Your task to perform on an android device: make emails show in primary in the gmail app Image 0: 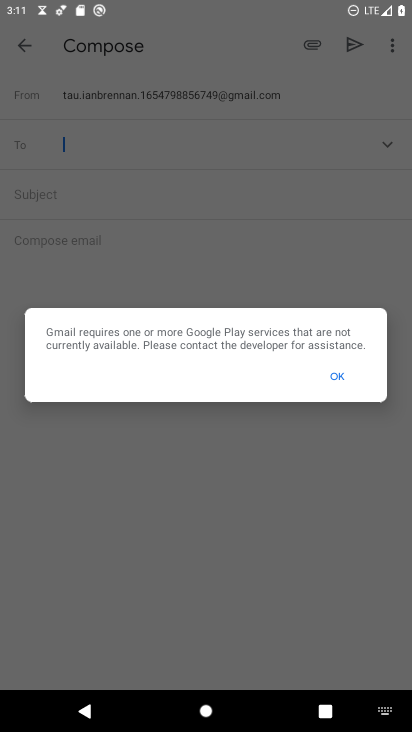
Step 0: press home button
Your task to perform on an android device: make emails show in primary in the gmail app Image 1: 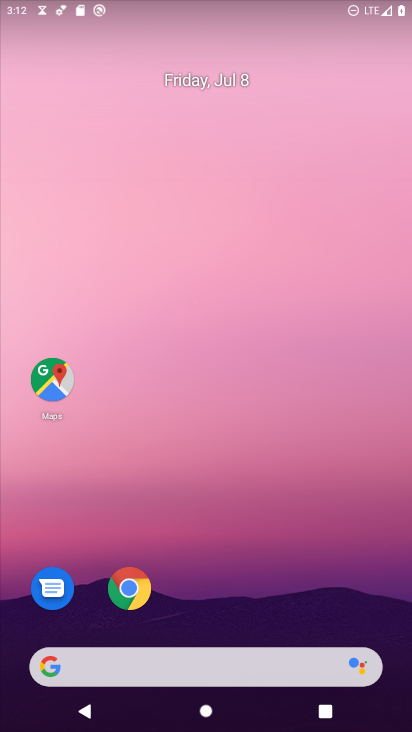
Step 1: drag from (213, 584) to (187, 209)
Your task to perform on an android device: make emails show in primary in the gmail app Image 2: 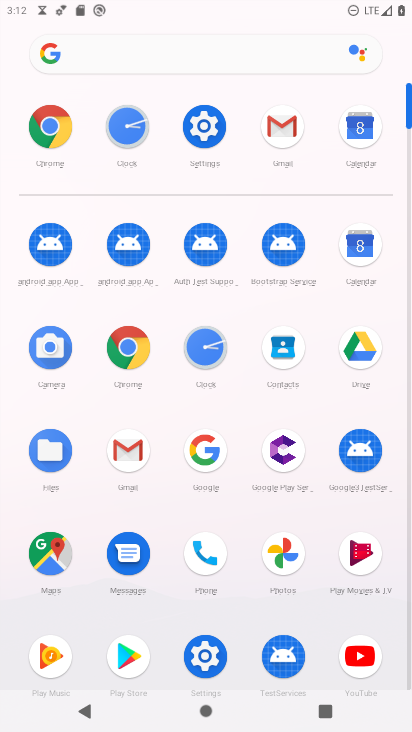
Step 2: click (284, 128)
Your task to perform on an android device: make emails show in primary in the gmail app Image 3: 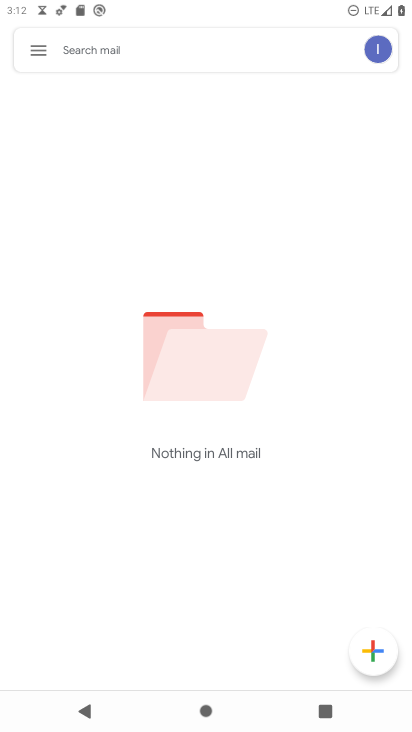
Step 3: click (34, 51)
Your task to perform on an android device: make emails show in primary in the gmail app Image 4: 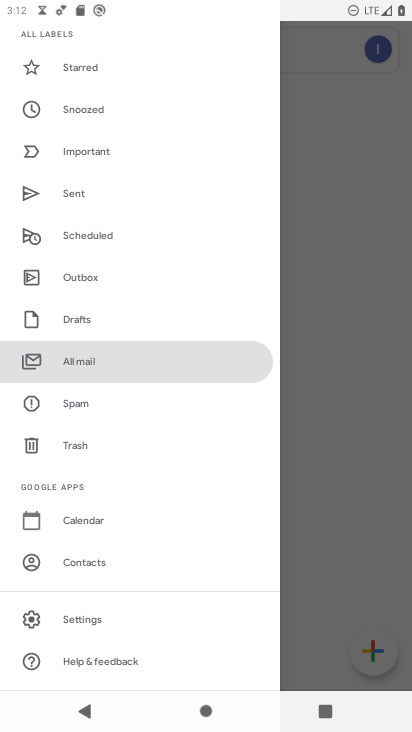
Step 4: click (80, 621)
Your task to perform on an android device: make emails show in primary in the gmail app Image 5: 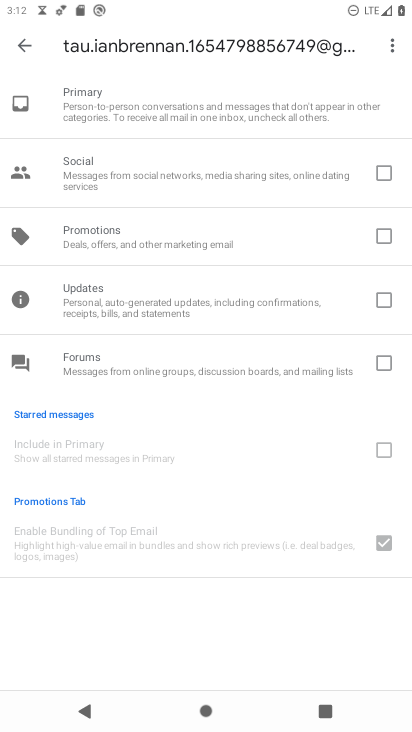
Step 5: drag from (198, 333) to (209, 666)
Your task to perform on an android device: make emails show in primary in the gmail app Image 6: 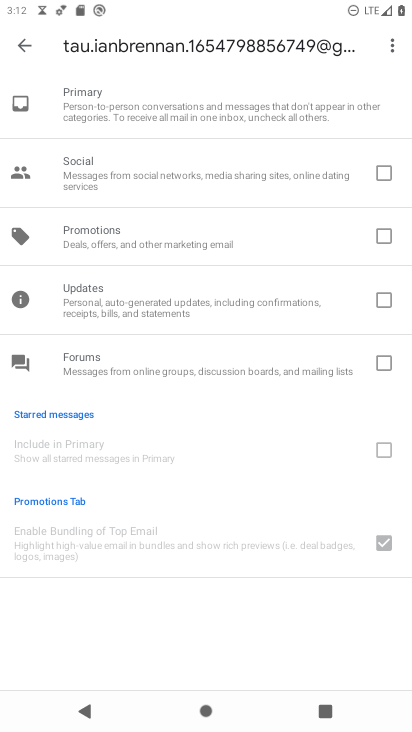
Step 6: drag from (216, 333) to (216, 602)
Your task to perform on an android device: make emails show in primary in the gmail app Image 7: 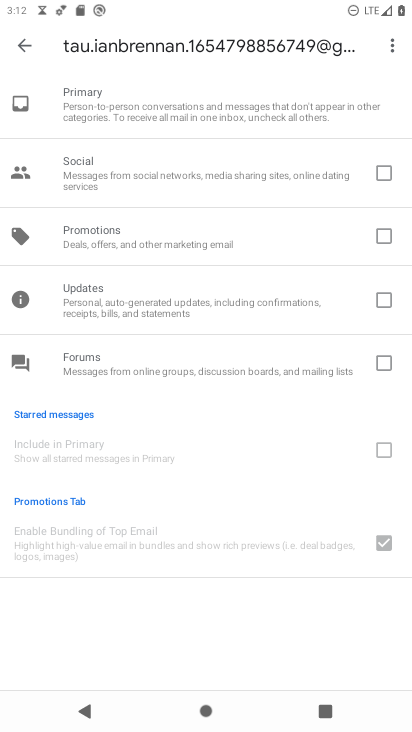
Step 7: click (28, 45)
Your task to perform on an android device: make emails show in primary in the gmail app Image 8: 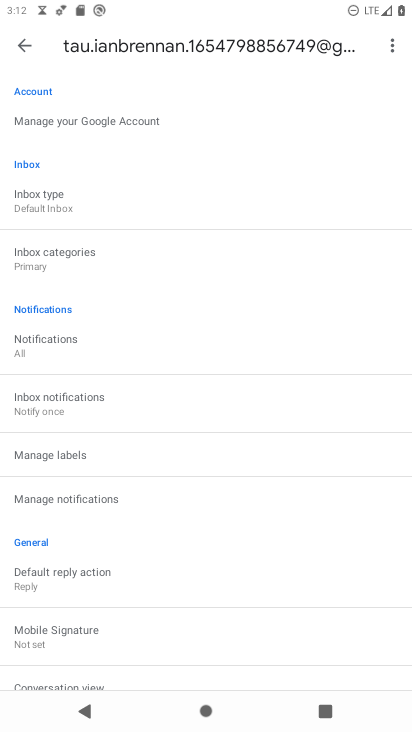
Step 8: task complete